Your task to perform on an android device: uninstall "Google Photos" Image 0: 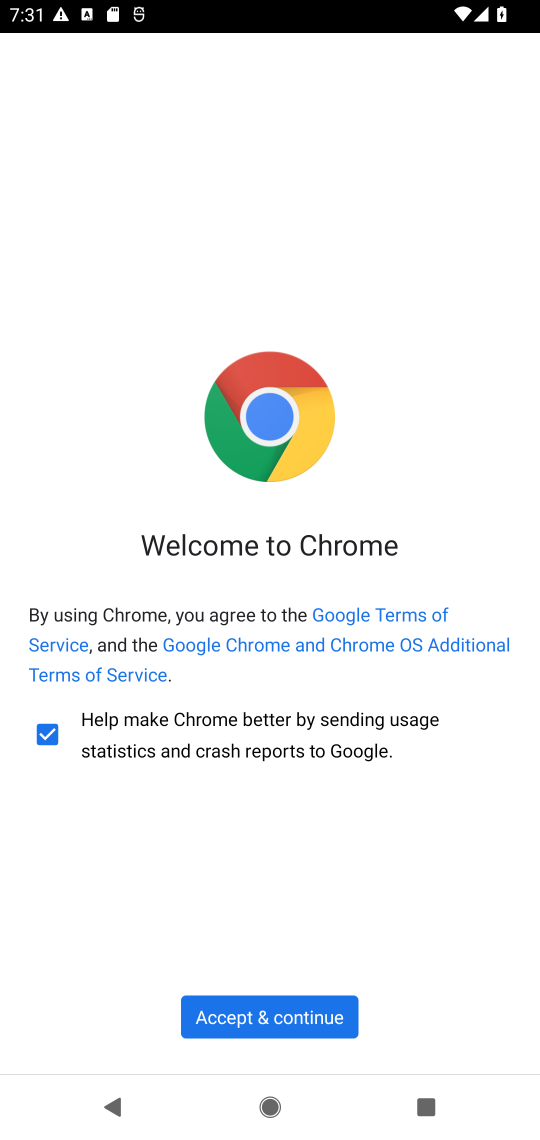
Step 0: press home button
Your task to perform on an android device: uninstall "Google Photos" Image 1: 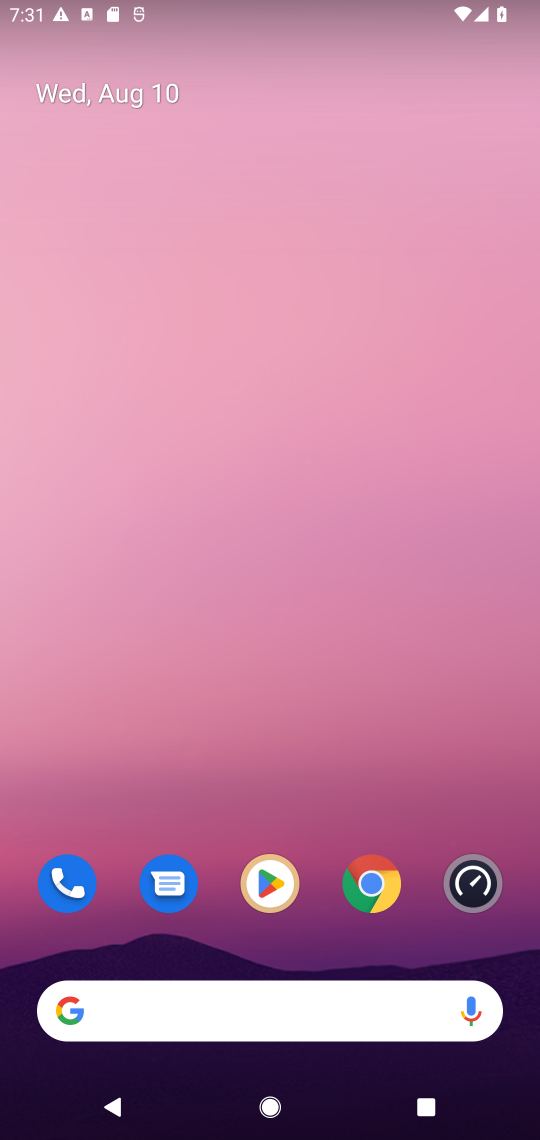
Step 1: drag from (334, 965) to (349, 52)
Your task to perform on an android device: uninstall "Google Photos" Image 2: 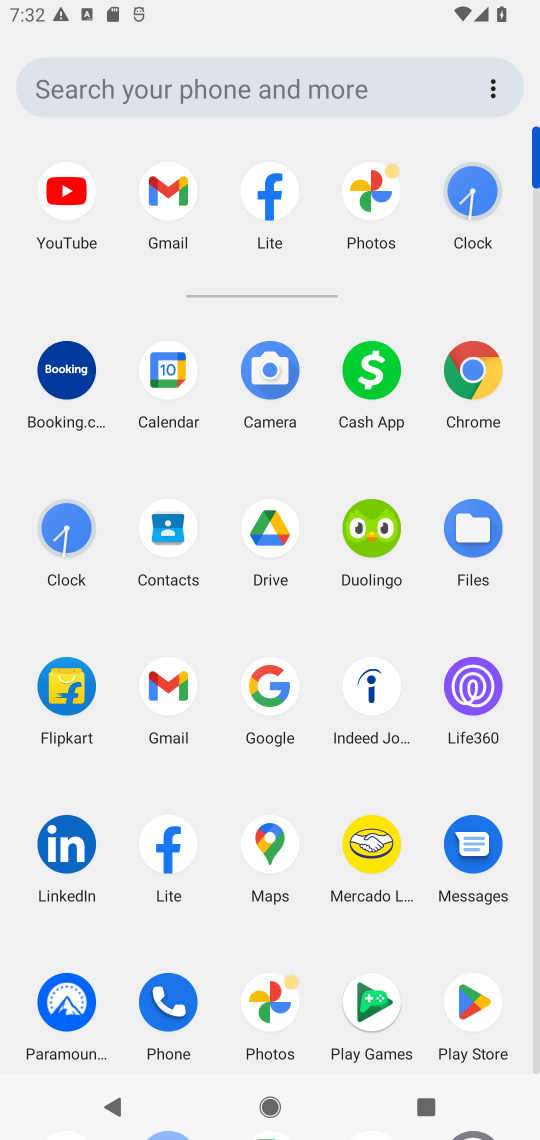
Step 2: click (470, 1001)
Your task to perform on an android device: uninstall "Google Photos" Image 3: 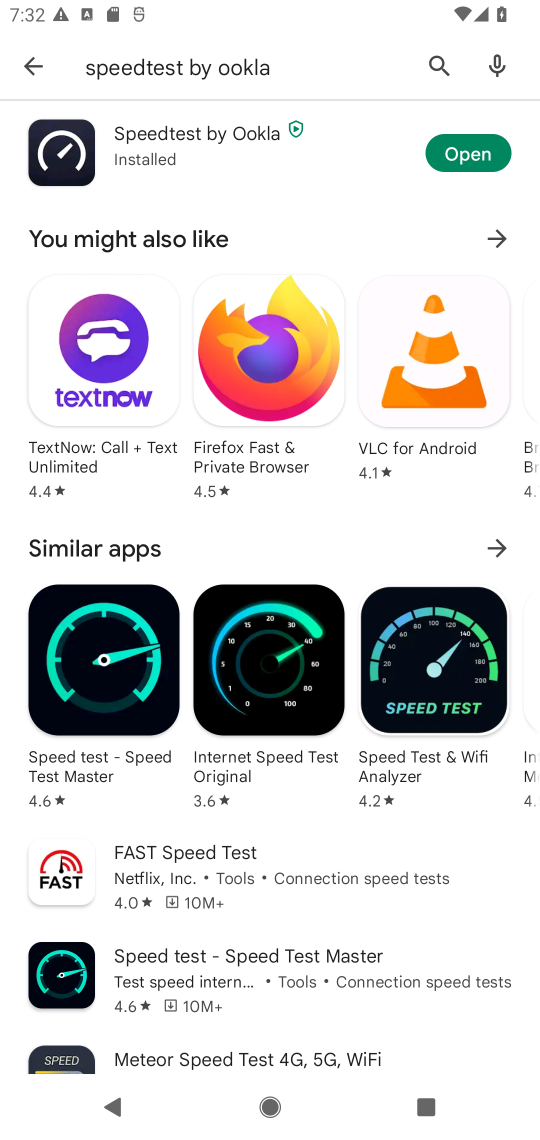
Step 3: click (435, 55)
Your task to perform on an android device: uninstall "Google Photos" Image 4: 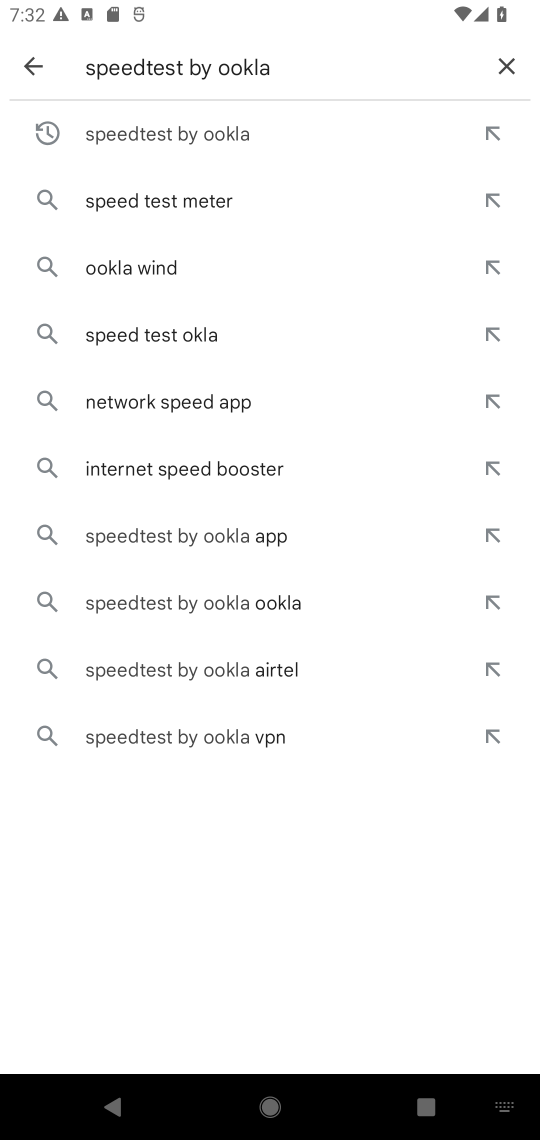
Step 4: click (497, 49)
Your task to perform on an android device: uninstall "Google Photos" Image 5: 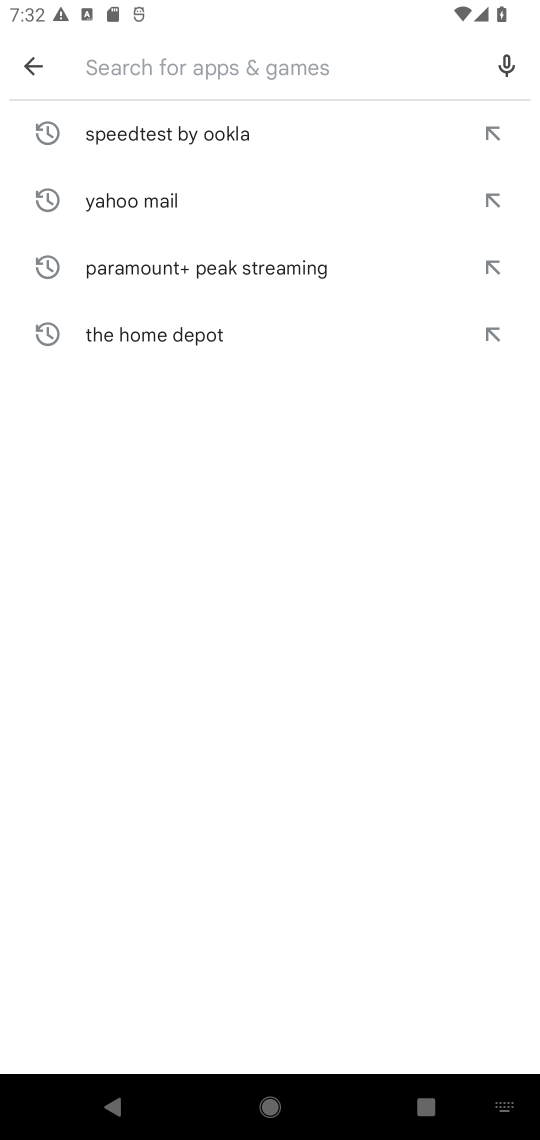
Step 5: type "Google Photos"
Your task to perform on an android device: uninstall "Google Photos" Image 6: 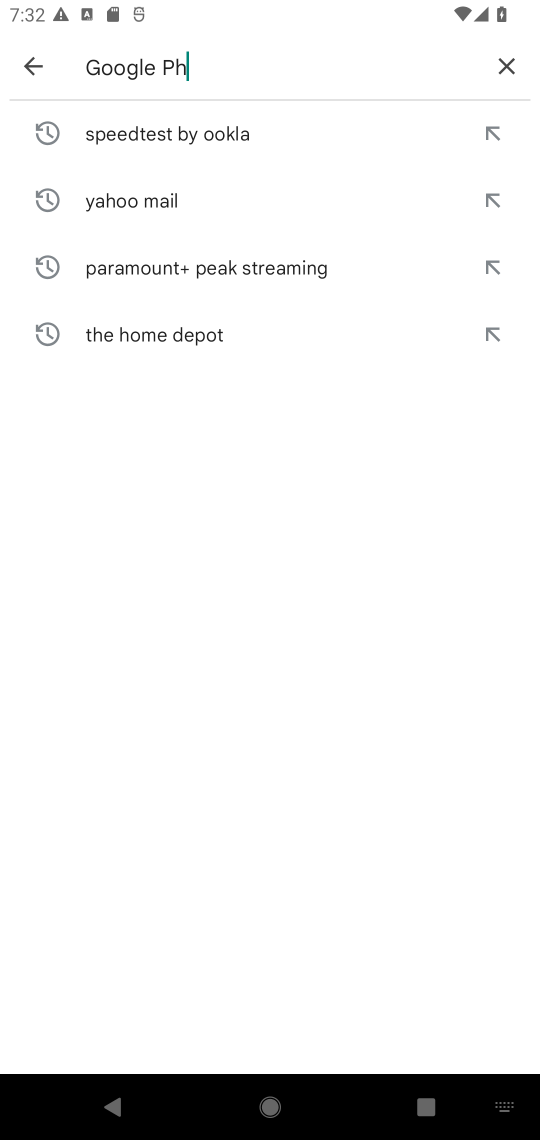
Step 6: type ""
Your task to perform on an android device: uninstall "Google Photos" Image 7: 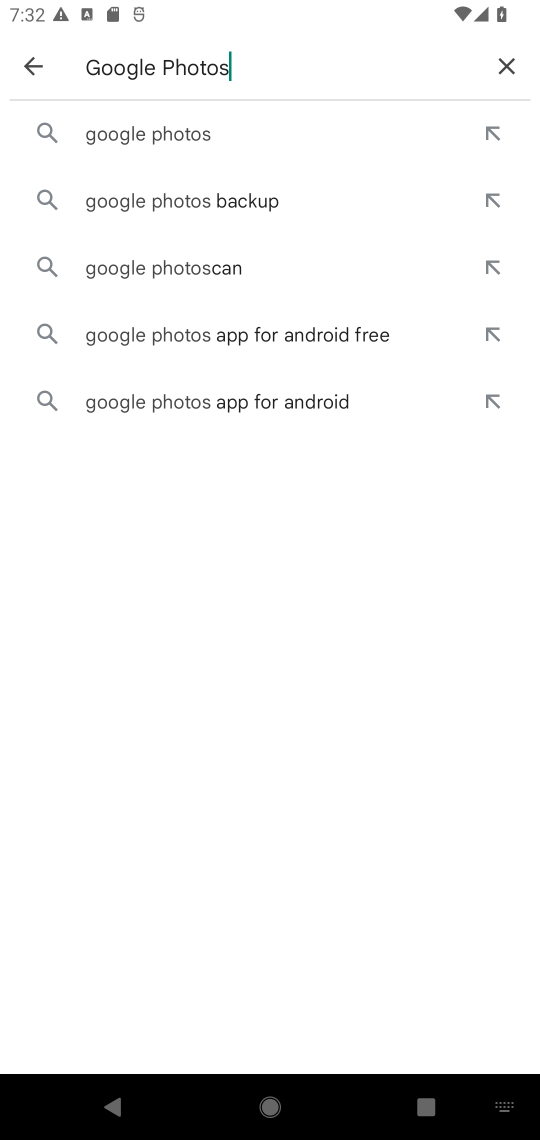
Step 7: click (171, 129)
Your task to perform on an android device: uninstall "Google Photos" Image 8: 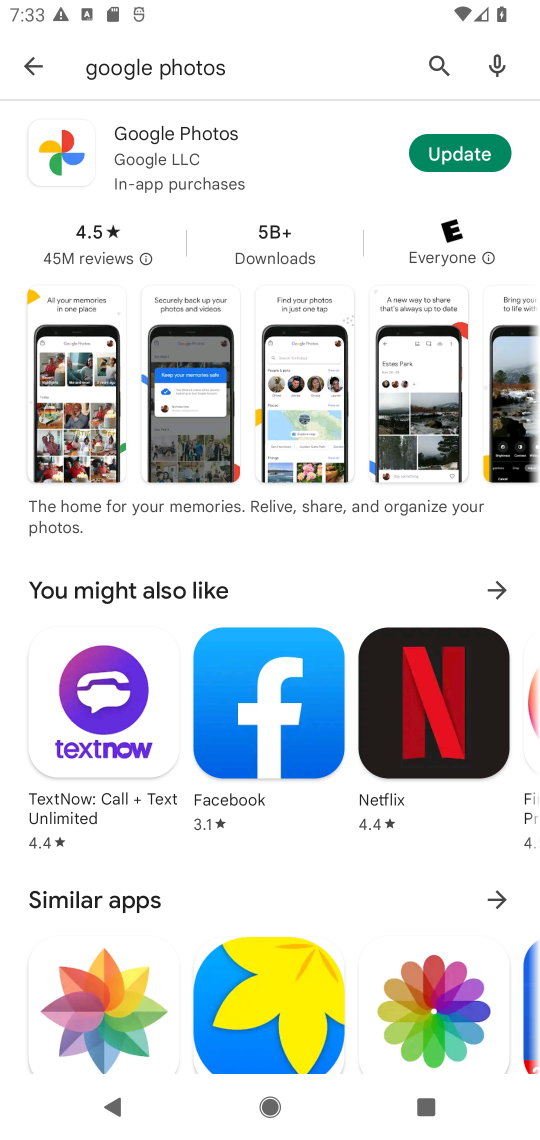
Step 8: click (158, 161)
Your task to perform on an android device: uninstall "Google Photos" Image 9: 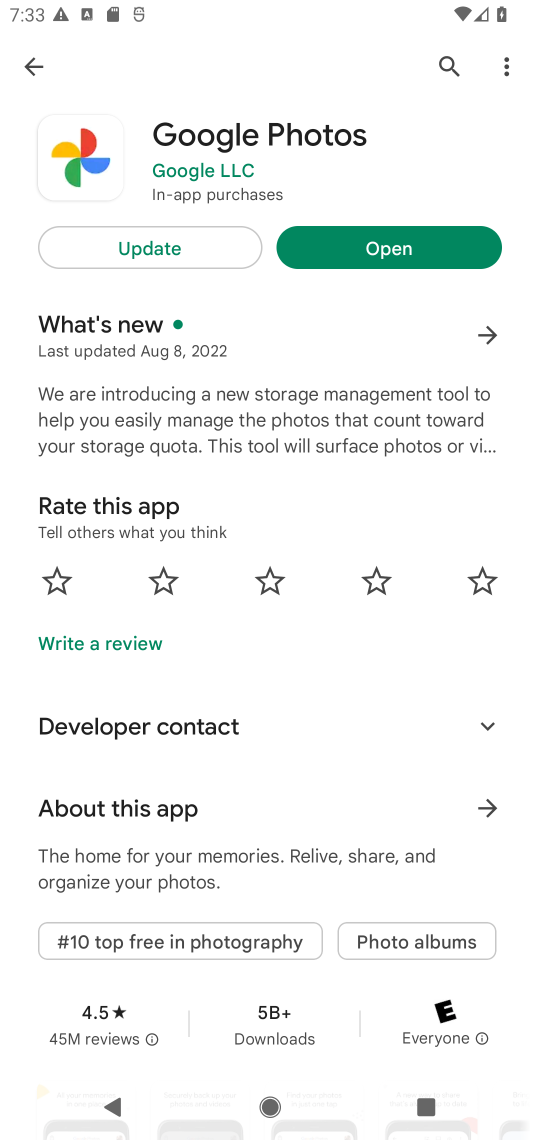
Step 9: task complete